Your task to perform on an android device: check battery use Image 0: 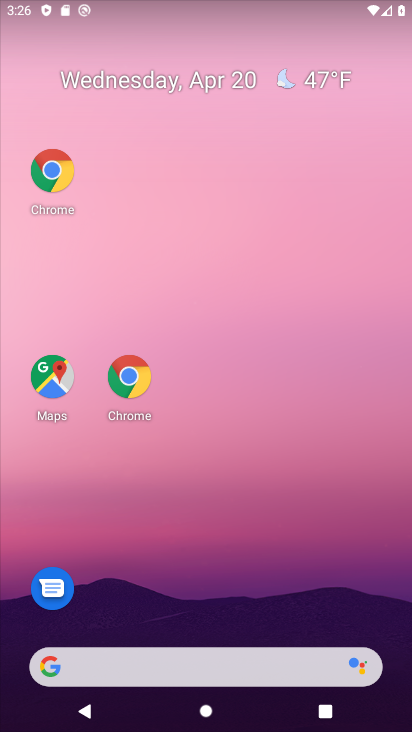
Step 0: drag from (345, 550) to (292, 113)
Your task to perform on an android device: check battery use Image 1: 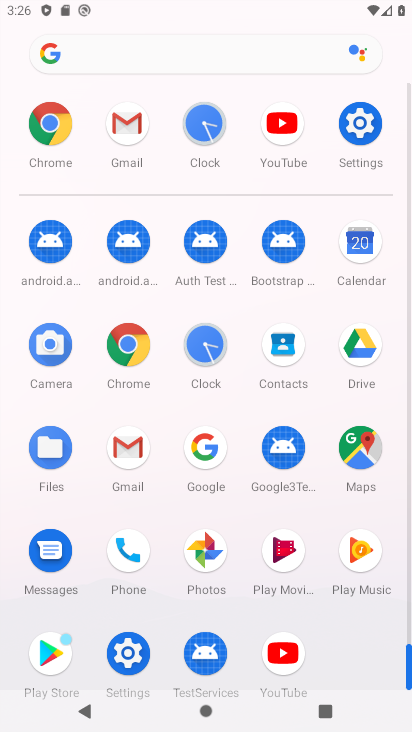
Step 1: click (130, 660)
Your task to perform on an android device: check battery use Image 2: 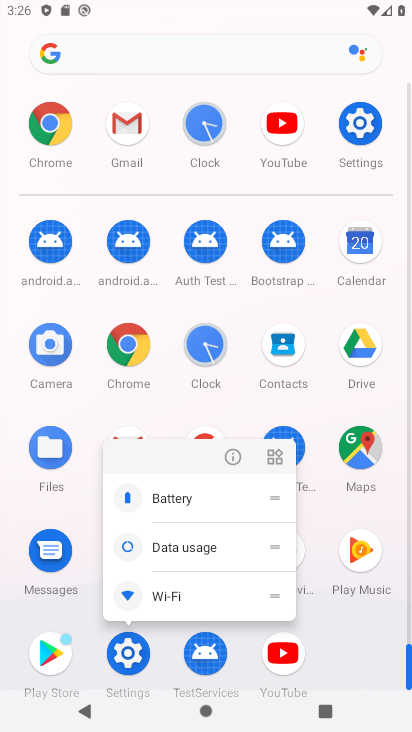
Step 2: click (196, 499)
Your task to perform on an android device: check battery use Image 3: 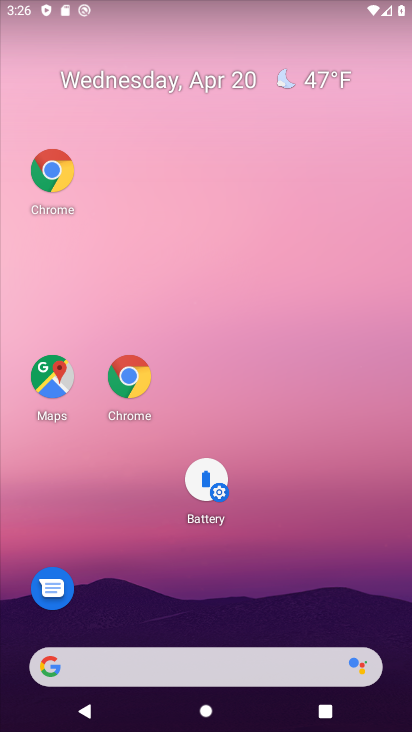
Step 3: click (217, 489)
Your task to perform on an android device: check battery use Image 4: 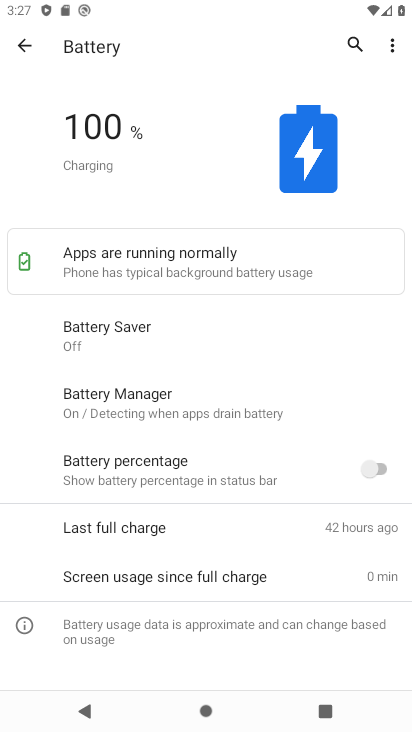
Step 4: task complete